Your task to perform on an android device: Is it going to rain tomorrow? Image 0: 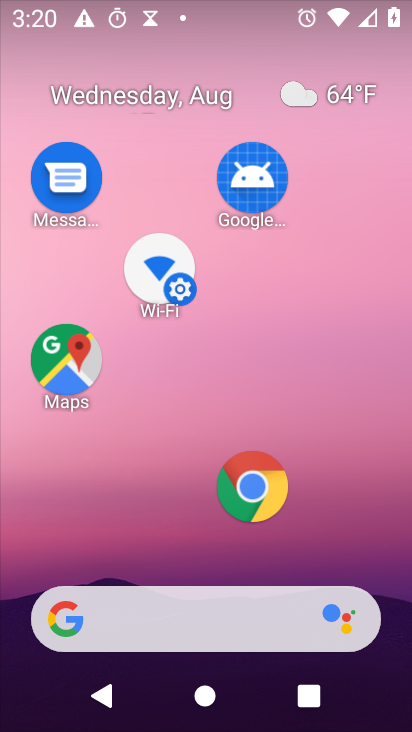
Step 0: press home button
Your task to perform on an android device: Is it going to rain tomorrow? Image 1: 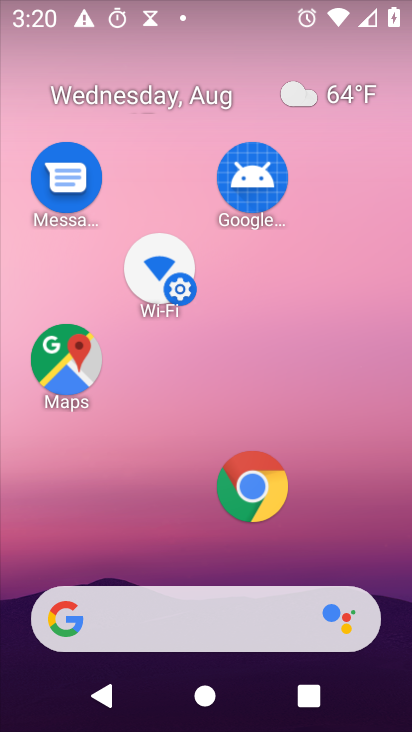
Step 1: click (69, 615)
Your task to perform on an android device: Is it going to rain tomorrow? Image 2: 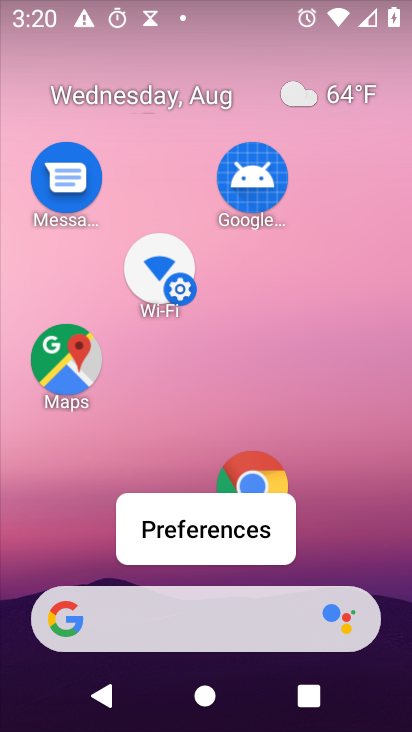
Step 2: click (68, 619)
Your task to perform on an android device: Is it going to rain tomorrow? Image 3: 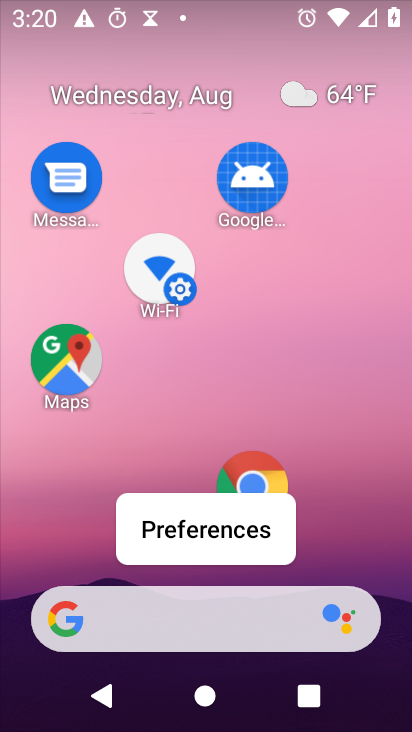
Step 3: click (66, 620)
Your task to perform on an android device: Is it going to rain tomorrow? Image 4: 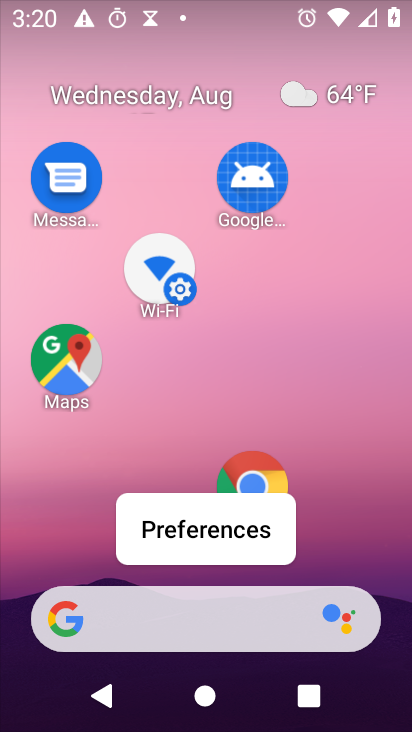
Step 4: click (63, 623)
Your task to perform on an android device: Is it going to rain tomorrow? Image 5: 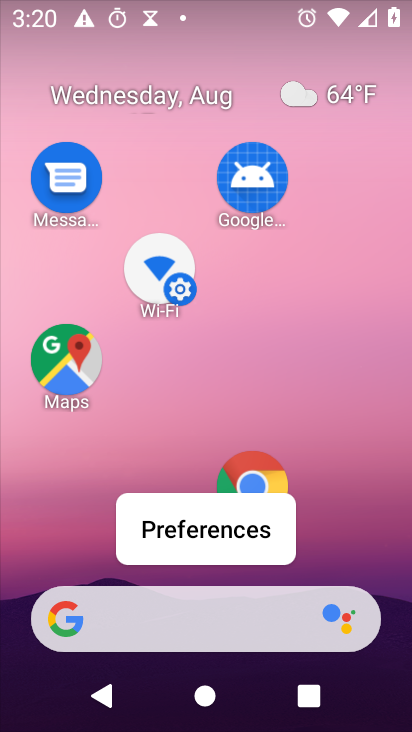
Step 5: click (62, 623)
Your task to perform on an android device: Is it going to rain tomorrow? Image 6: 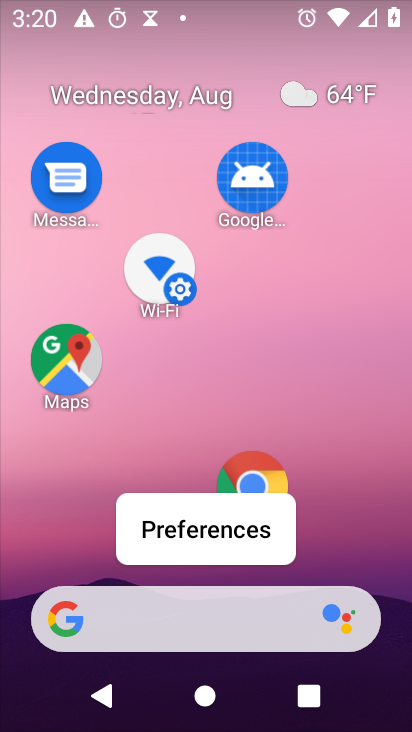
Step 6: click (71, 623)
Your task to perform on an android device: Is it going to rain tomorrow? Image 7: 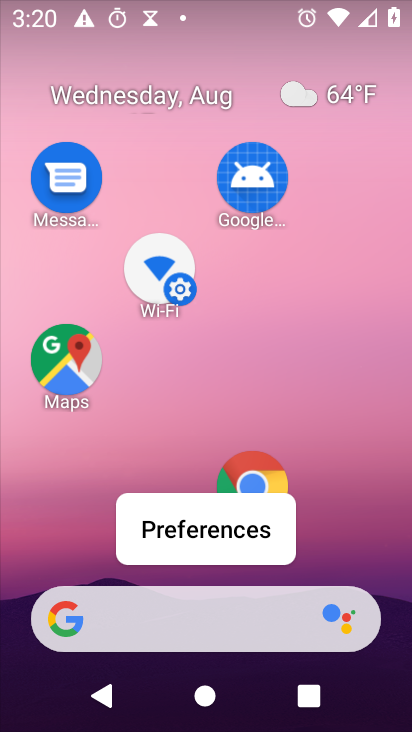
Step 7: click (56, 615)
Your task to perform on an android device: Is it going to rain tomorrow? Image 8: 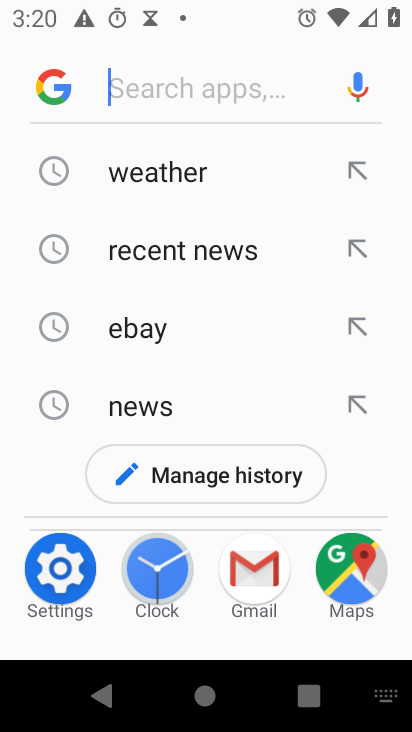
Step 8: type "rain tomorrow?"
Your task to perform on an android device: Is it going to rain tomorrow? Image 9: 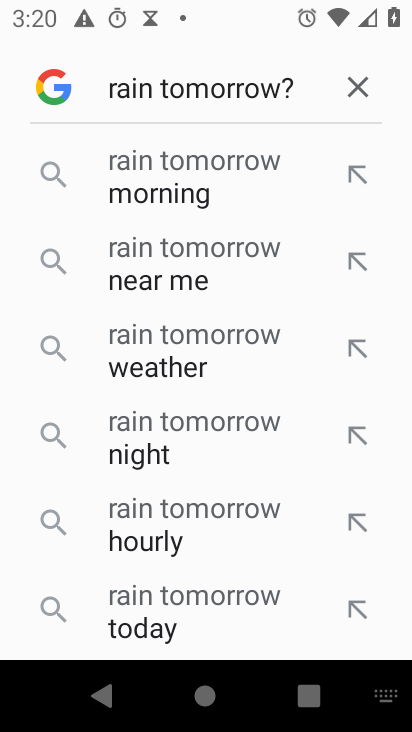
Step 9: press enter
Your task to perform on an android device: Is it going to rain tomorrow? Image 10: 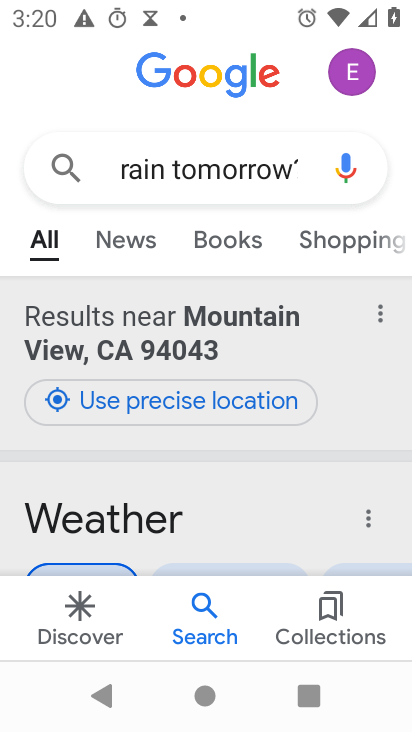
Step 10: task complete